Your task to perform on an android device: Open Chrome and go to settings Image 0: 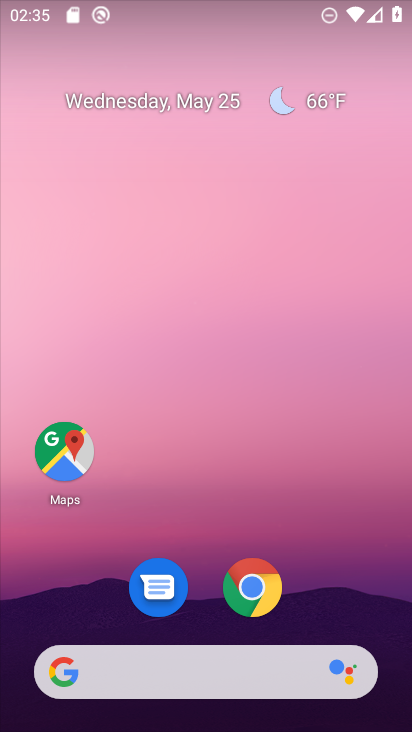
Step 0: drag from (361, 594) to (355, 412)
Your task to perform on an android device: Open Chrome and go to settings Image 1: 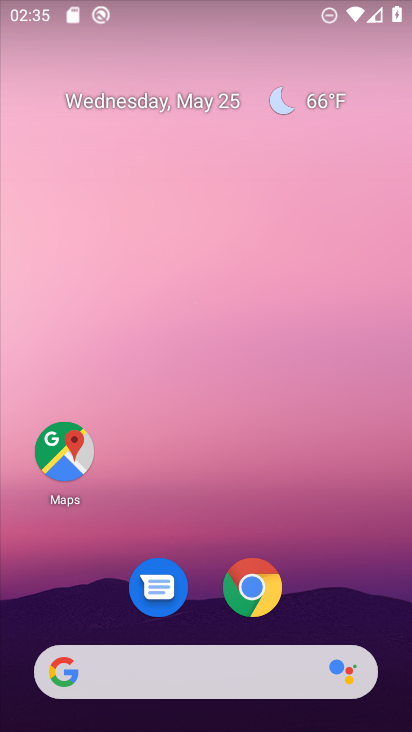
Step 1: drag from (345, 610) to (344, 291)
Your task to perform on an android device: Open Chrome and go to settings Image 2: 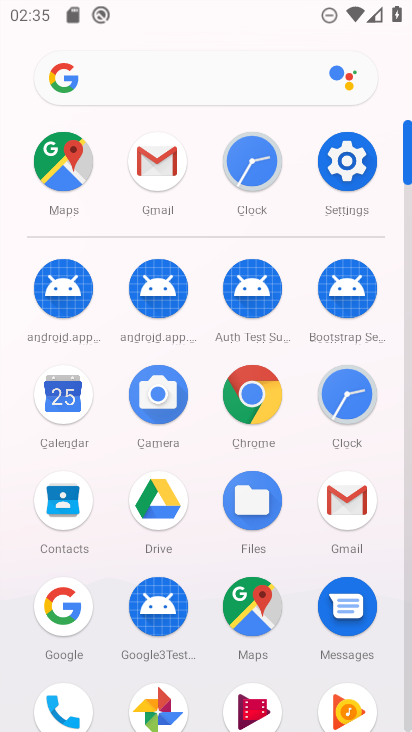
Step 2: click (271, 407)
Your task to perform on an android device: Open Chrome and go to settings Image 3: 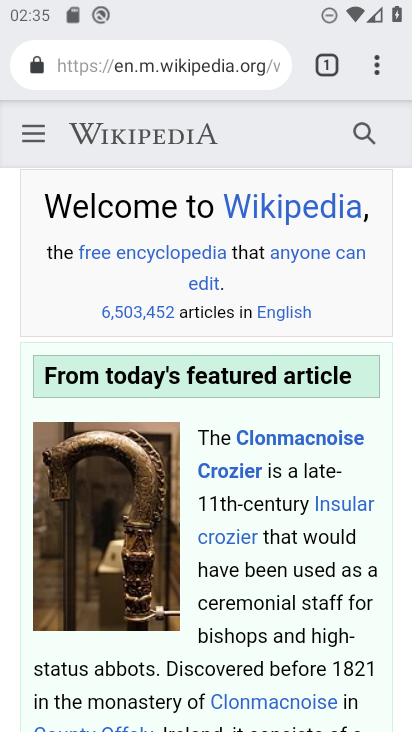
Step 3: click (376, 71)
Your task to perform on an android device: Open Chrome and go to settings Image 4: 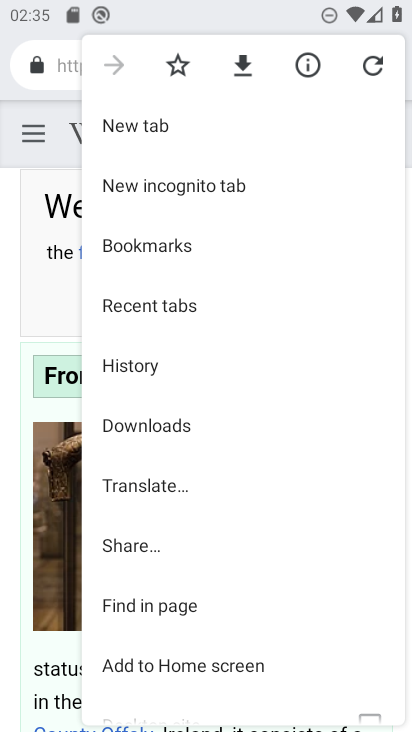
Step 4: drag from (308, 581) to (306, 440)
Your task to perform on an android device: Open Chrome and go to settings Image 5: 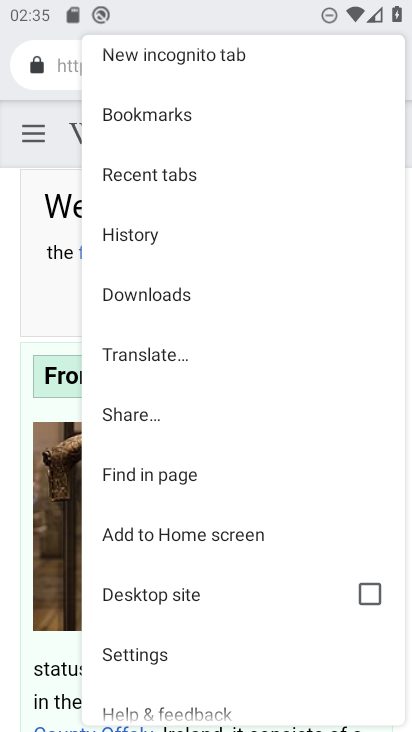
Step 5: drag from (295, 626) to (304, 498)
Your task to perform on an android device: Open Chrome and go to settings Image 6: 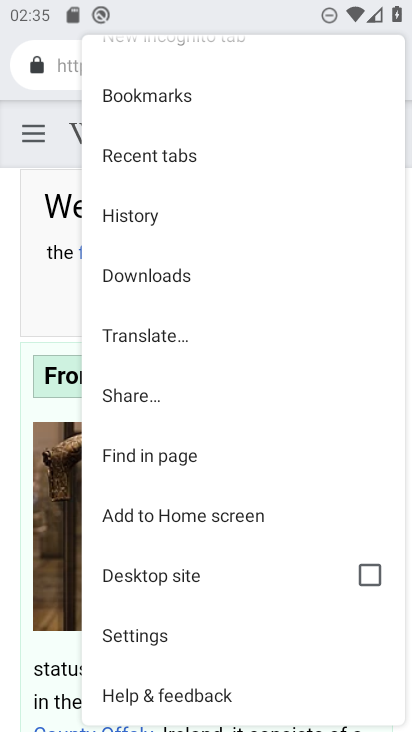
Step 6: click (146, 633)
Your task to perform on an android device: Open Chrome and go to settings Image 7: 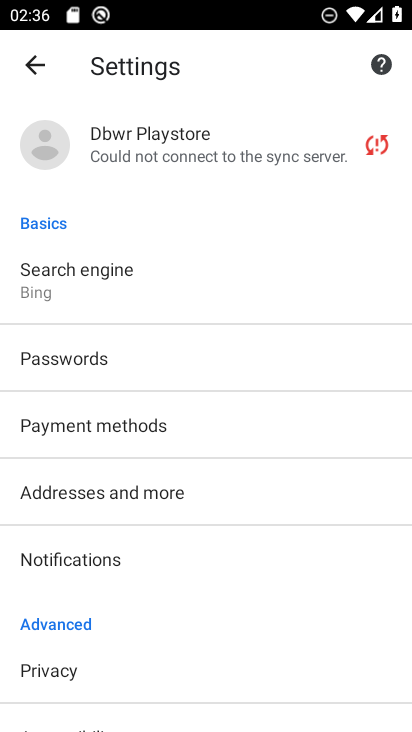
Step 7: task complete